Your task to perform on an android device: visit the assistant section in the google photos Image 0: 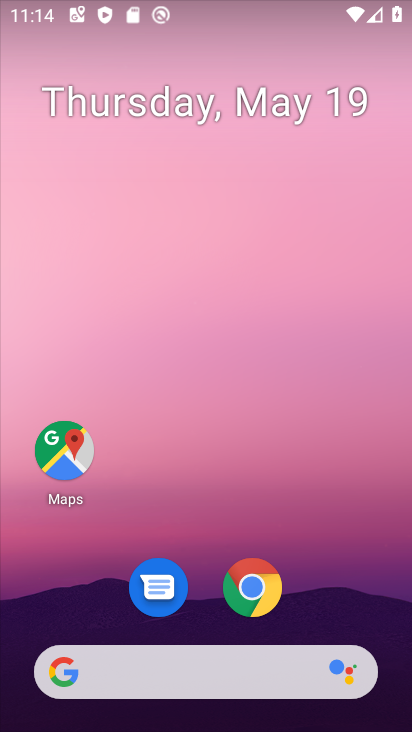
Step 0: drag from (194, 672) to (149, 207)
Your task to perform on an android device: visit the assistant section in the google photos Image 1: 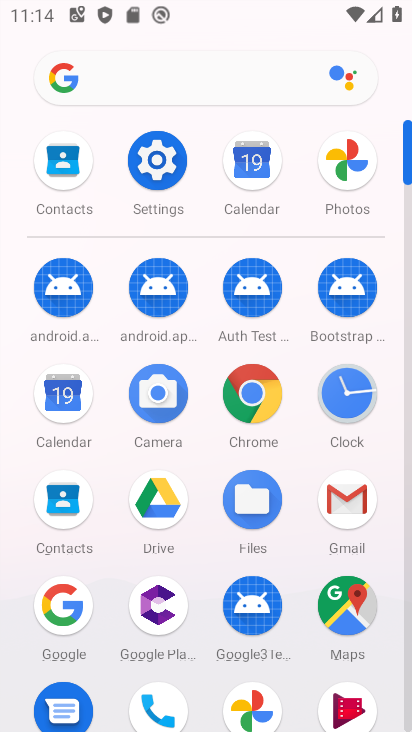
Step 1: click (249, 690)
Your task to perform on an android device: visit the assistant section in the google photos Image 2: 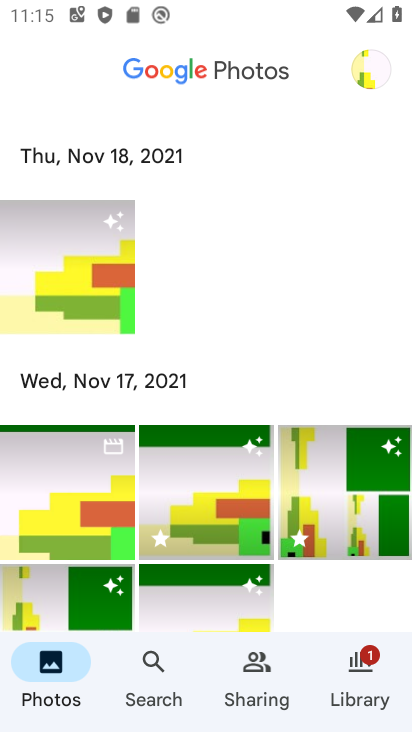
Step 2: task complete